Your task to perform on an android device: turn off location Image 0: 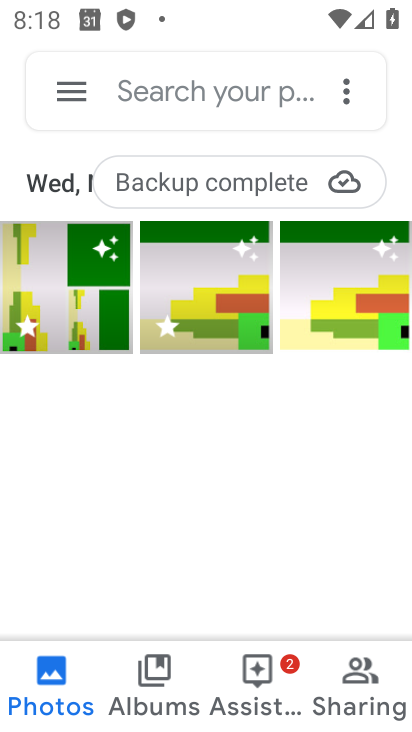
Step 0: press home button
Your task to perform on an android device: turn off location Image 1: 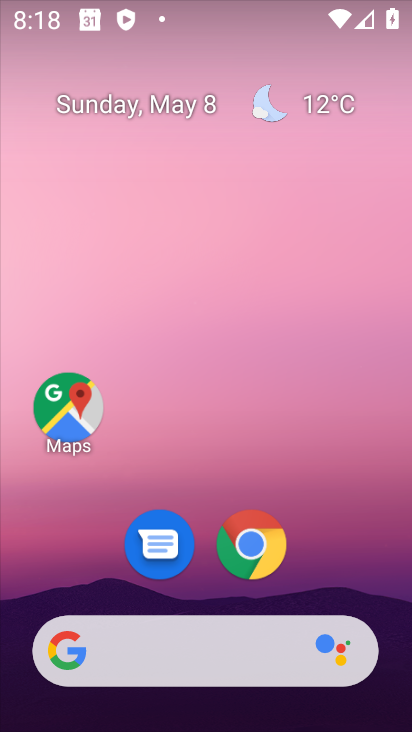
Step 1: drag from (340, 515) to (249, 24)
Your task to perform on an android device: turn off location Image 2: 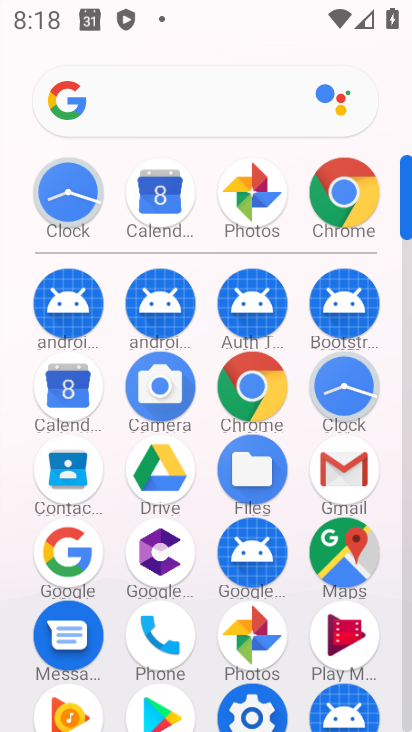
Step 2: click (249, 713)
Your task to perform on an android device: turn off location Image 3: 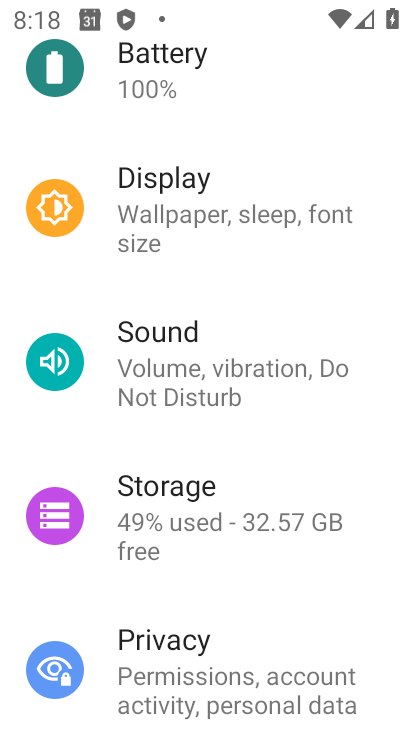
Step 3: drag from (242, 572) to (189, 216)
Your task to perform on an android device: turn off location Image 4: 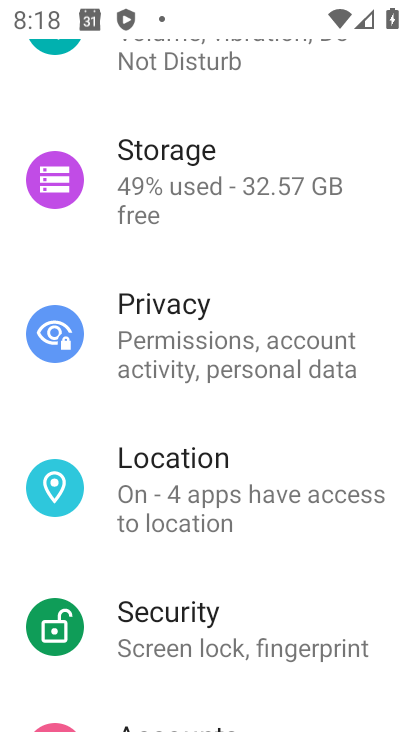
Step 4: click (189, 458)
Your task to perform on an android device: turn off location Image 5: 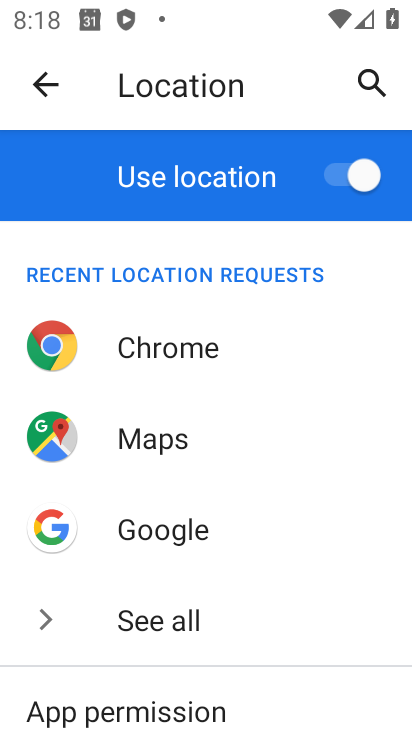
Step 5: click (355, 174)
Your task to perform on an android device: turn off location Image 6: 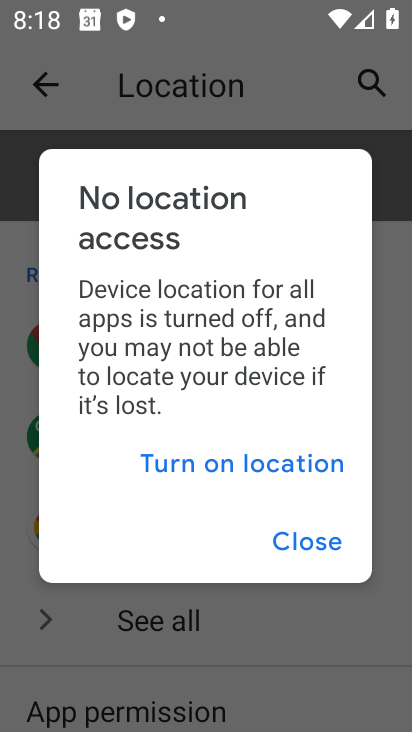
Step 6: click (311, 535)
Your task to perform on an android device: turn off location Image 7: 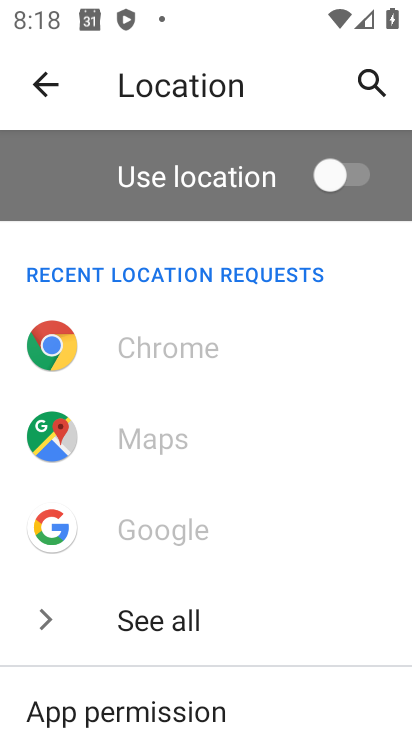
Step 7: task complete